Your task to perform on an android device: When is my next meeting? Image 0: 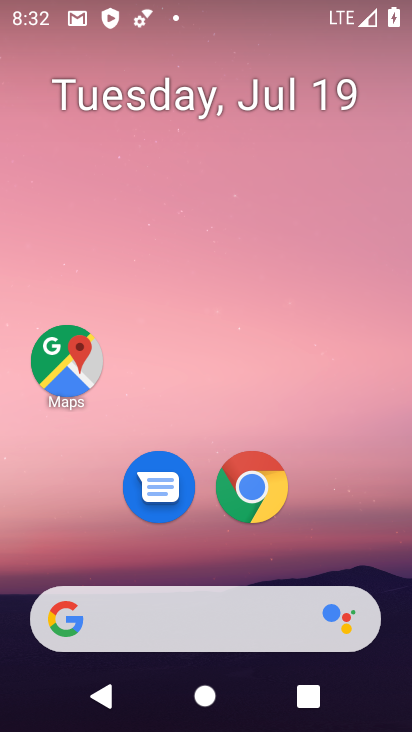
Step 0: drag from (208, 540) to (307, 41)
Your task to perform on an android device: When is my next meeting? Image 1: 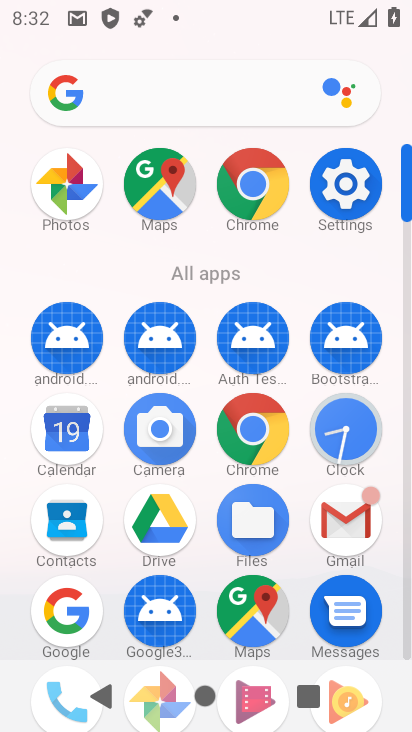
Step 1: click (67, 438)
Your task to perform on an android device: When is my next meeting? Image 2: 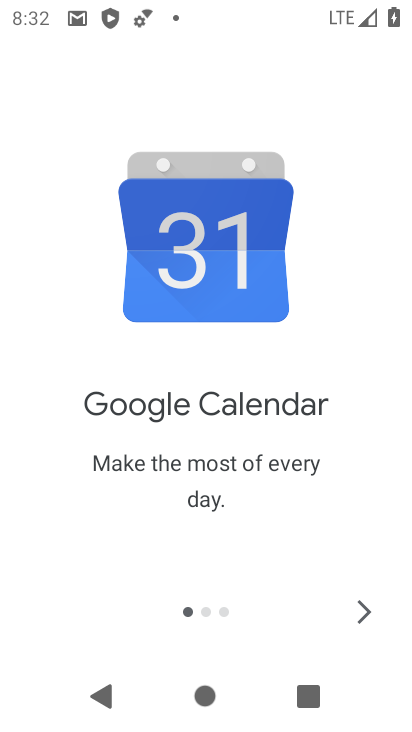
Step 2: click (368, 599)
Your task to perform on an android device: When is my next meeting? Image 3: 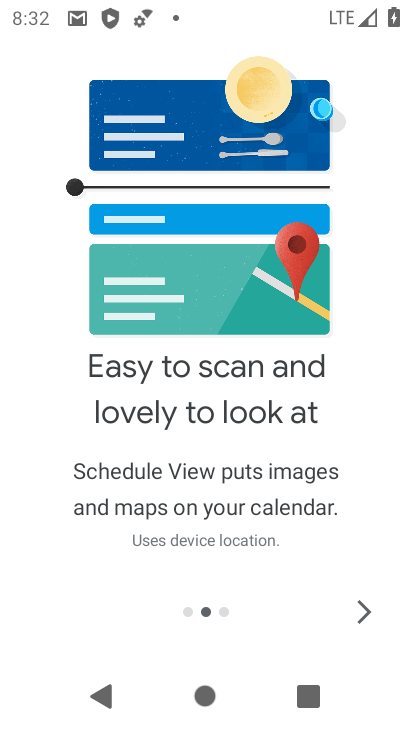
Step 3: click (368, 599)
Your task to perform on an android device: When is my next meeting? Image 4: 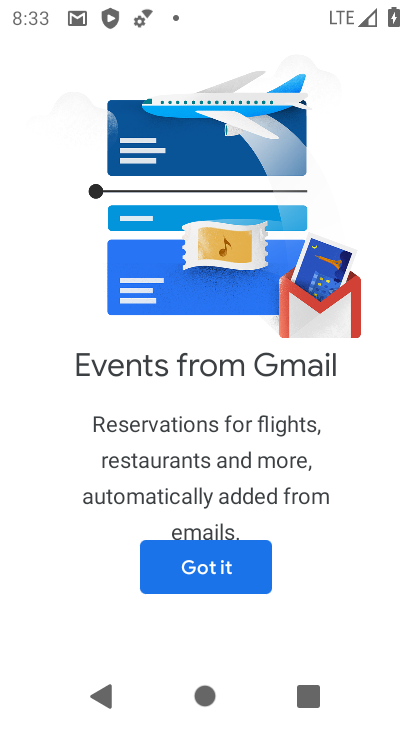
Step 4: click (244, 572)
Your task to perform on an android device: When is my next meeting? Image 5: 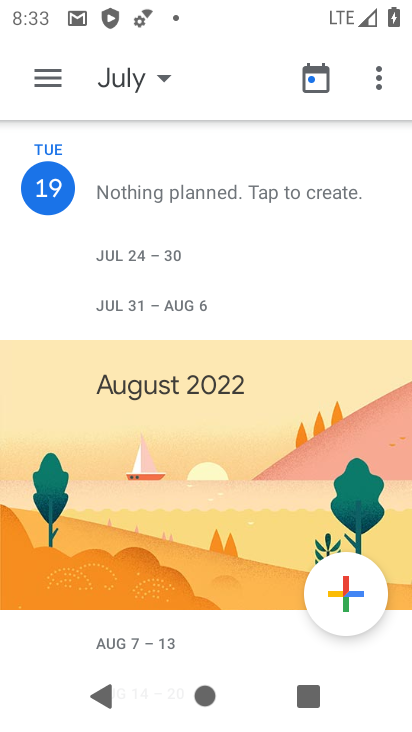
Step 5: task complete